Your task to perform on an android device: turn off wifi Image 0: 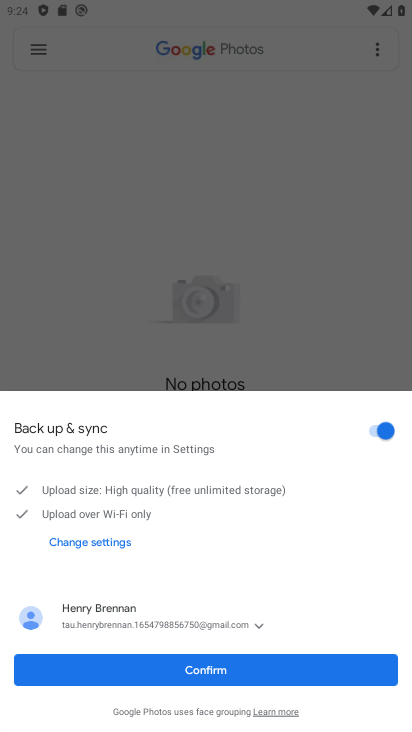
Step 0: press home button
Your task to perform on an android device: turn off wifi Image 1: 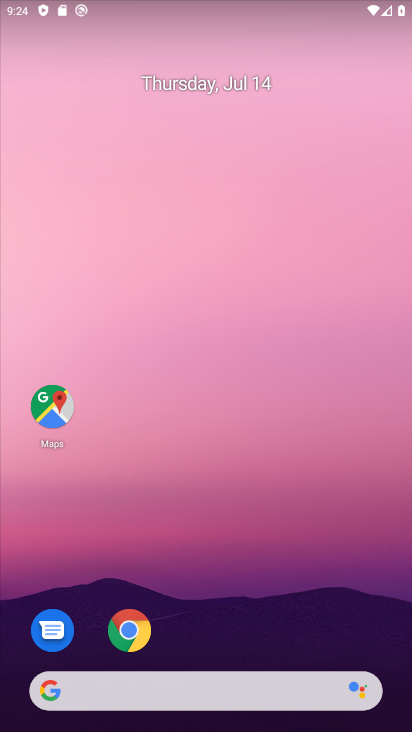
Step 1: drag from (194, 648) to (284, 60)
Your task to perform on an android device: turn off wifi Image 2: 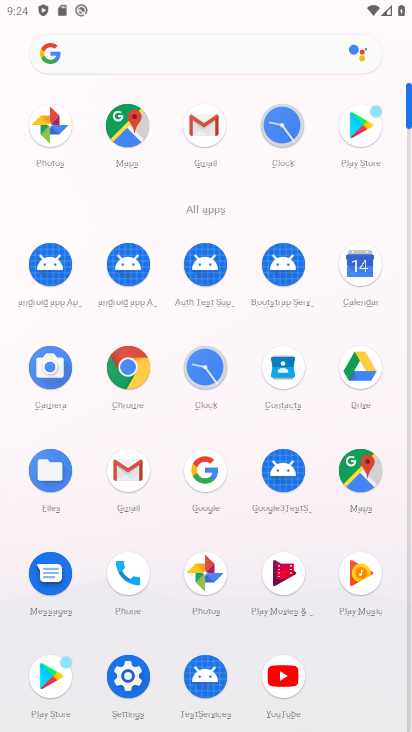
Step 2: click (140, 663)
Your task to perform on an android device: turn off wifi Image 3: 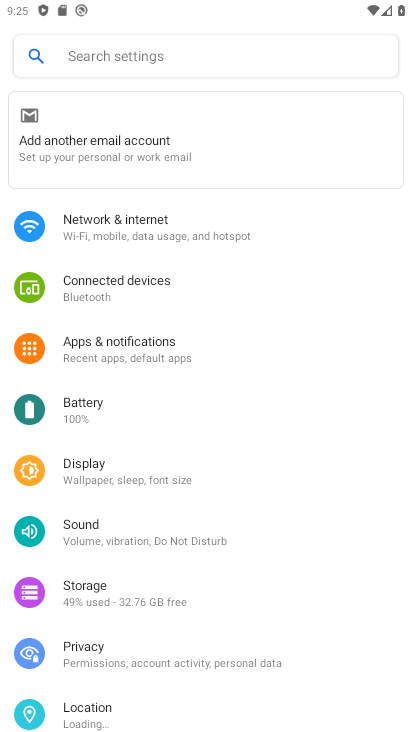
Step 3: click (172, 227)
Your task to perform on an android device: turn off wifi Image 4: 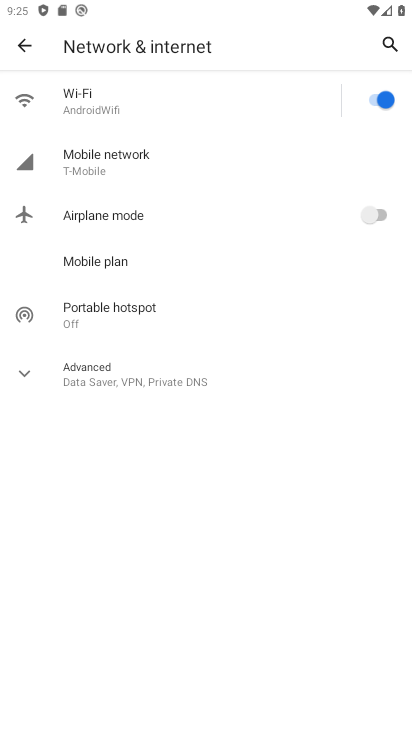
Step 4: click (374, 99)
Your task to perform on an android device: turn off wifi Image 5: 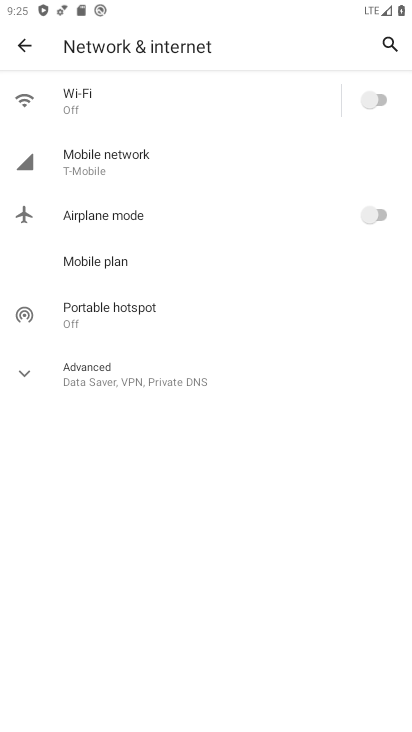
Step 5: task complete